Your task to perform on an android device: Go to Android settings Image 0: 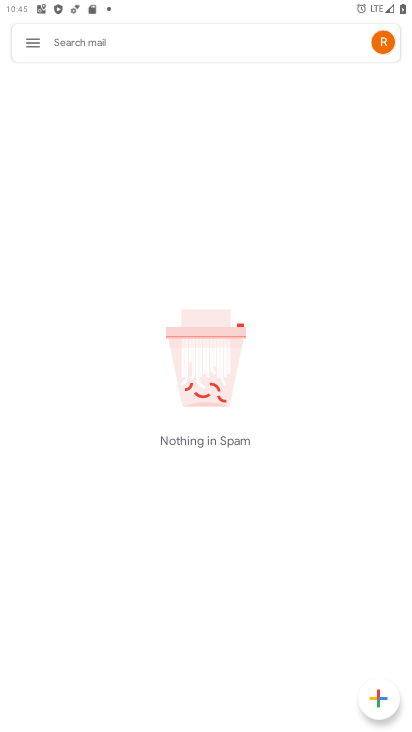
Step 0: click (394, 362)
Your task to perform on an android device: Go to Android settings Image 1: 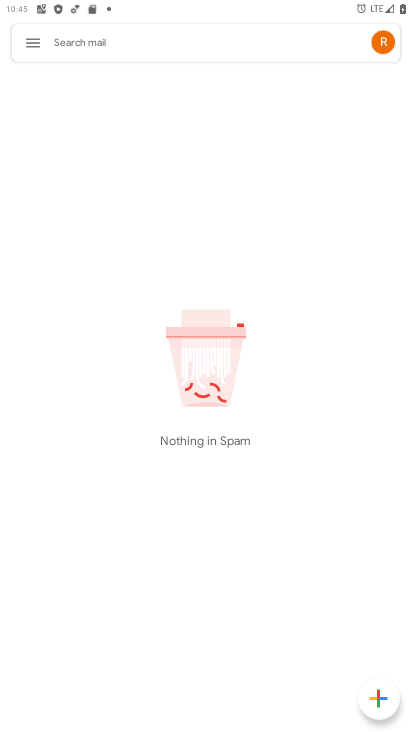
Step 1: press home button
Your task to perform on an android device: Go to Android settings Image 2: 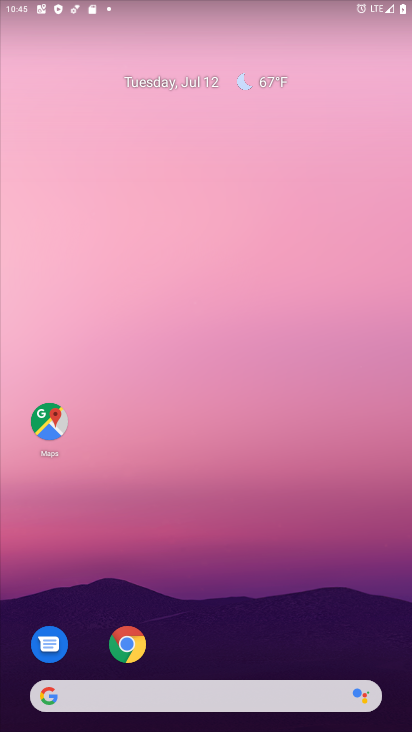
Step 2: drag from (191, 609) to (240, 389)
Your task to perform on an android device: Go to Android settings Image 3: 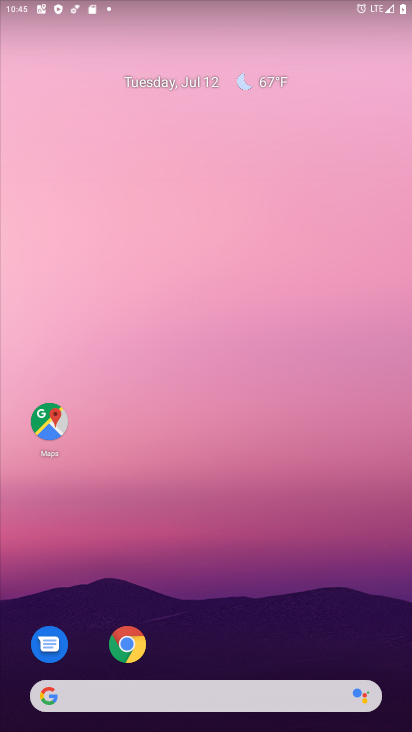
Step 3: drag from (163, 677) to (355, 324)
Your task to perform on an android device: Go to Android settings Image 4: 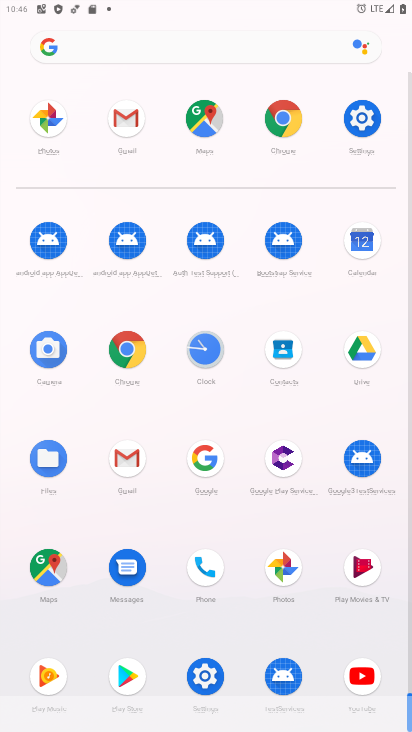
Step 4: click (214, 681)
Your task to perform on an android device: Go to Android settings Image 5: 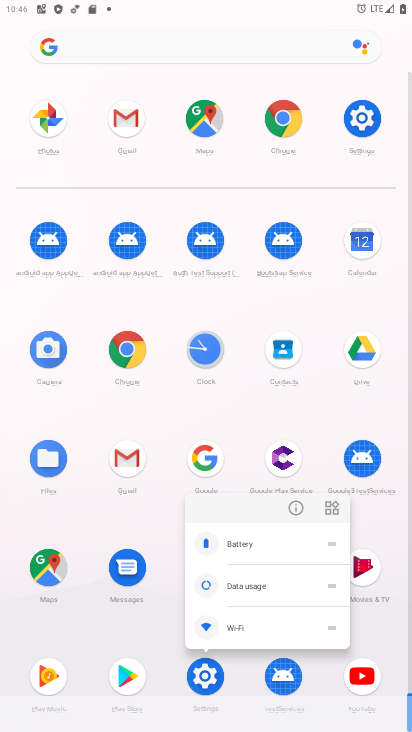
Step 5: click (284, 510)
Your task to perform on an android device: Go to Android settings Image 6: 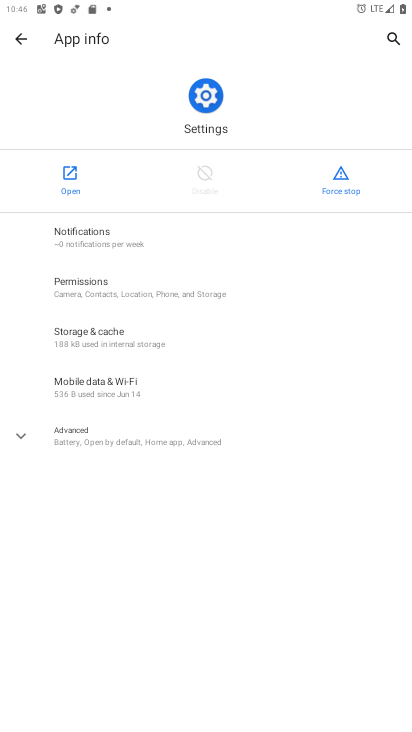
Step 6: click (68, 190)
Your task to perform on an android device: Go to Android settings Image 7: 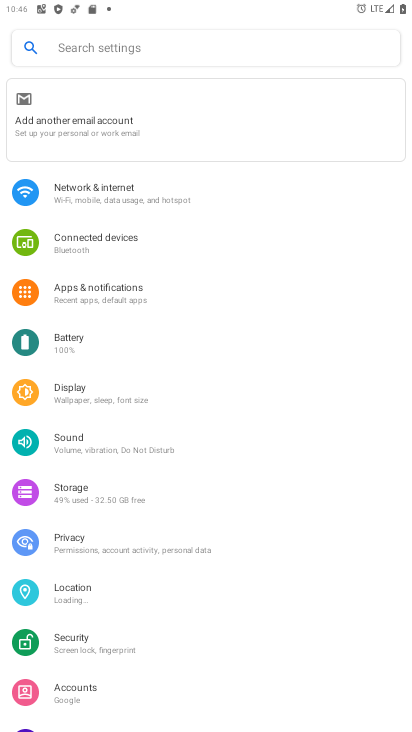
Step 7: drag from (187, 462) to (242, 169)
Your task to perform on an android device: Go to Android settings Image 8: 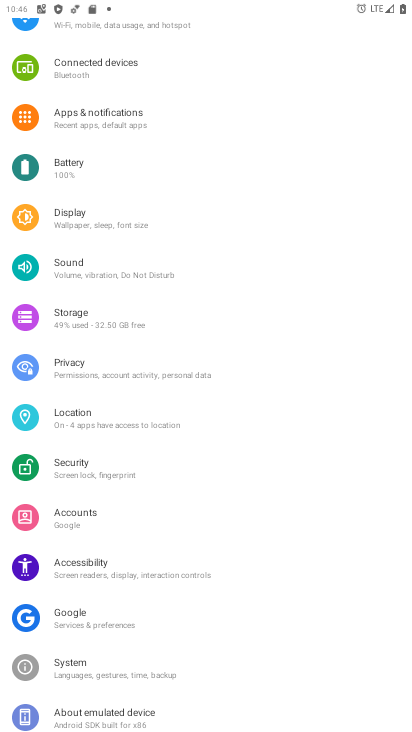
Step 8: drag from (170, 608) to (300, 149)
Your task to perform on an android device: Go to Android settings Image 9: 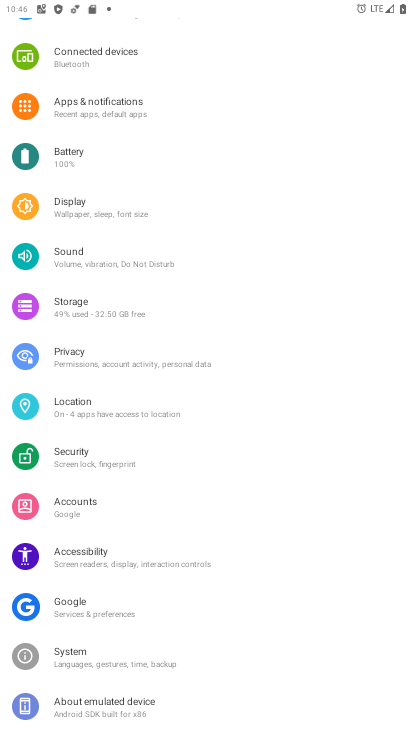
Step 9: click (130, 704)
Your task to perform on an android device: Go to Android settings Image 10: 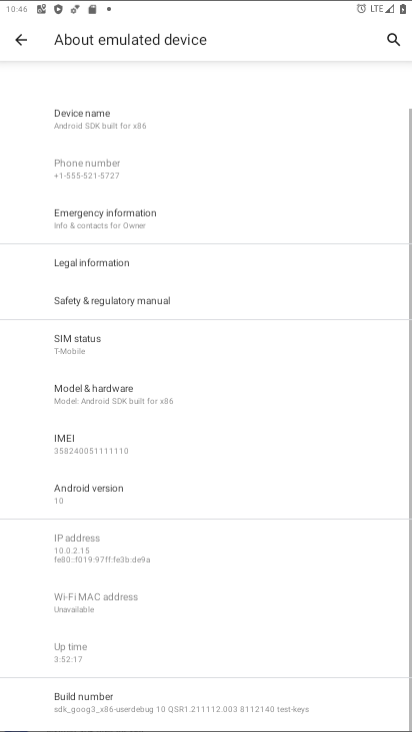
Step 10: drag from (148, 648) to (276, 139)
Your task to perform on an android device: Go to Android settings Image 11: 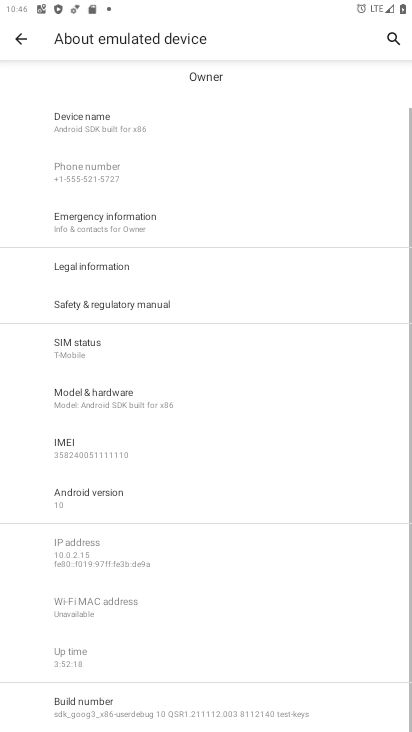
Step 11: drag from (192, 621) to (254, 198)
Your task to perform on an android device: Go to Android settings Image 12: 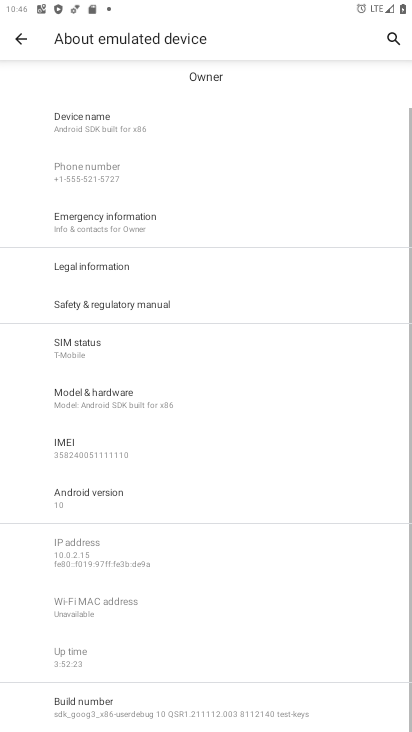
Step 12: click (128, 504)
Your task to perform on an android device: Go to Android settings Image 13: 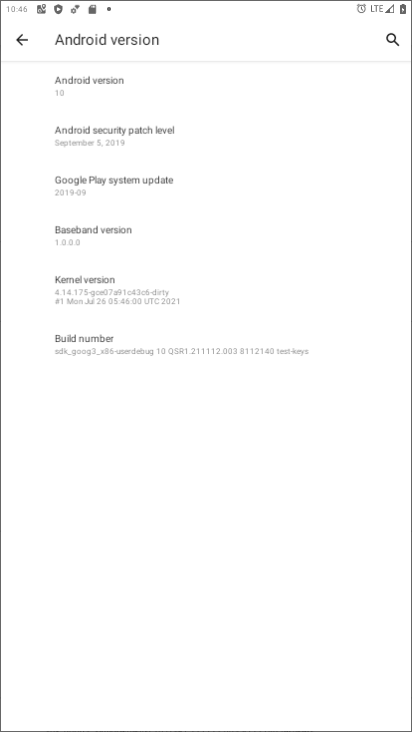
Step 13: drag from (128, 502) to (223, 242)
Your task to perform on an android device: Go to Android settings Image 14: 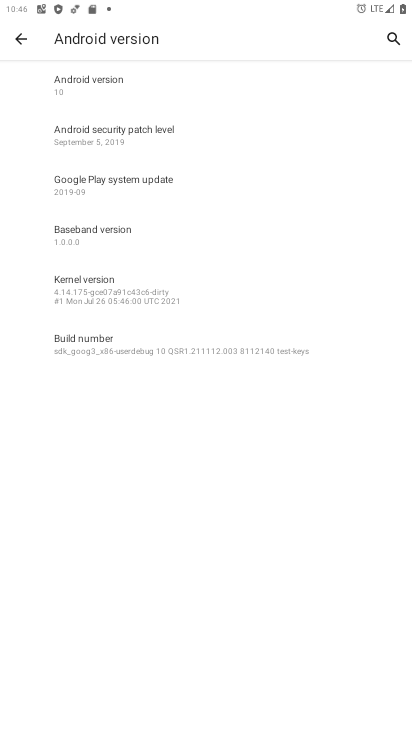
Step 14: drag from (185, 361) to (226, 226)
Your task to perform on an android device: Go to Android settings Image 15: 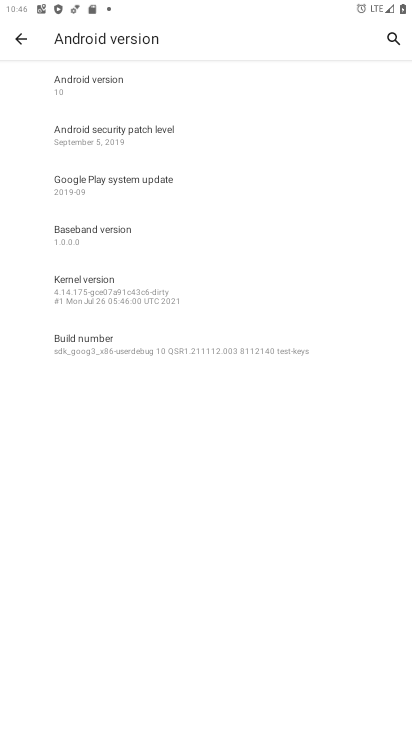
Step 15: click (173, 84)
Your task to perform on an android device: Go to Android settings Image 16: 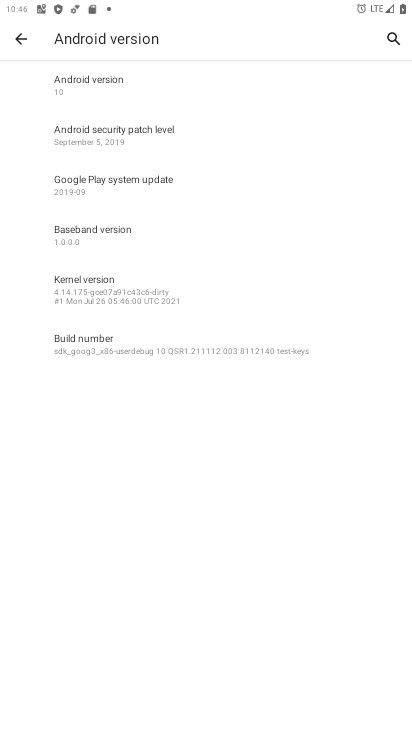
Step 16: click (173, 84)
Your task to perform on an android device: Go to Android settings Image 17: 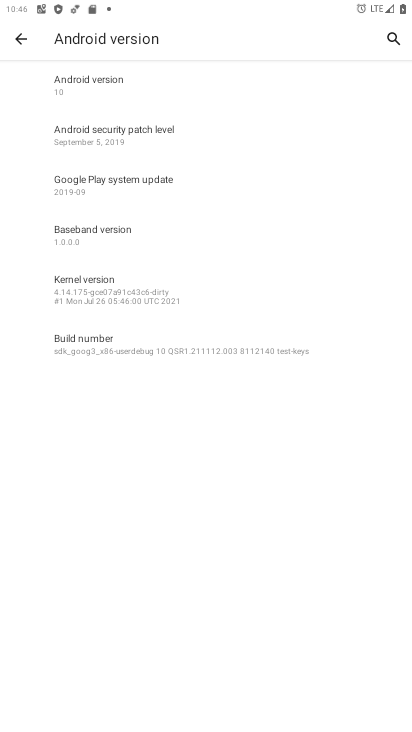
Step 17: task complete